Your task to perform on an android device: Search for vegetarian restaurants on Maps Image 0: 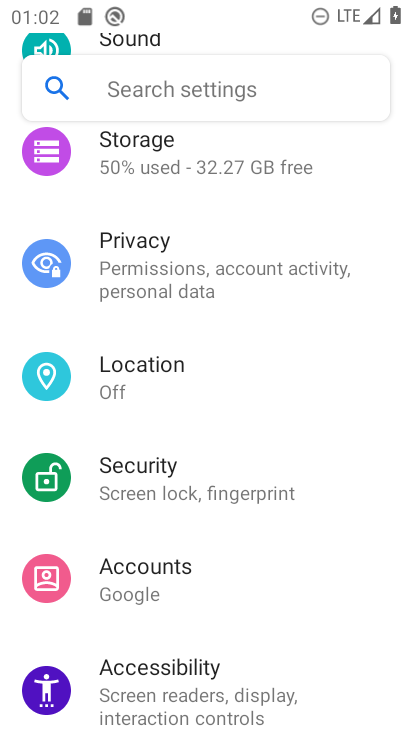
Step 0: press home button
Your task to perform on an android device: Search for vegetarian restaurants on Maps Image 1: 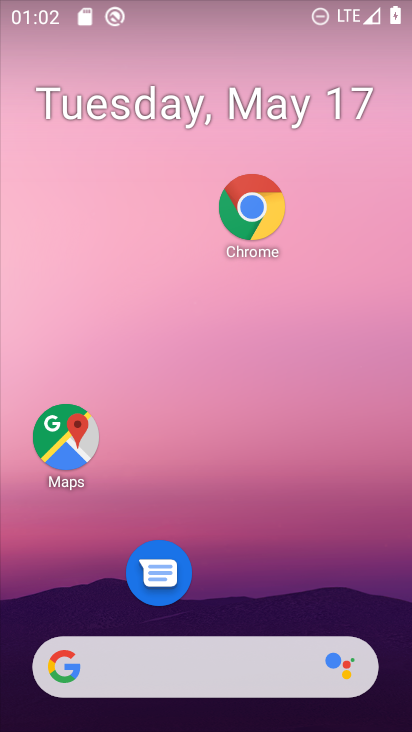
Step 1: drag from (273, 560) to (274, 113)
Your task to perform on an android device: Search for vegetarian restaurants on Maps Image 2: 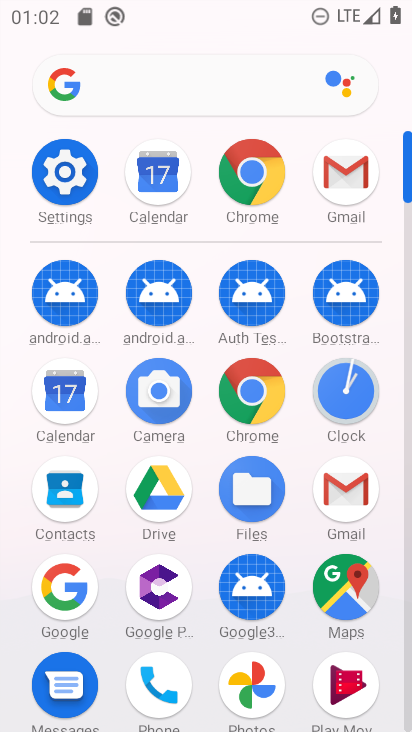
Step 2: click (340, 598)
Your task to perform on an android device: Search for vegetarian restaurants on Maps Image 3: 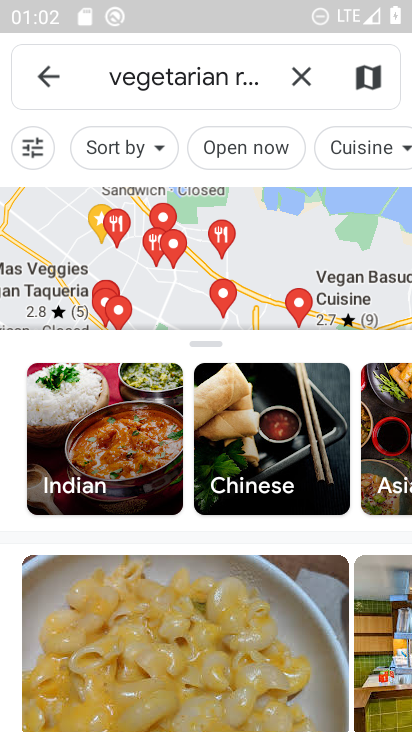
Step 3: task complete